Your task to perform on an android device: What's the weather going to be tomorrow? Image 0: 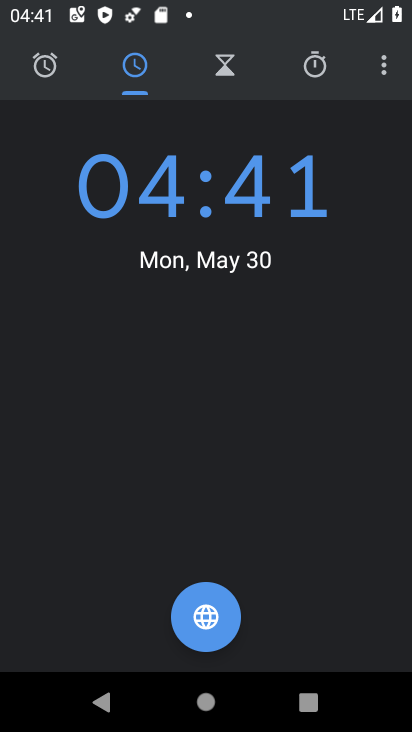
Step 0: press home button
Your task to perform on an android device: What's the weather going to be tomorrow? Image 1: 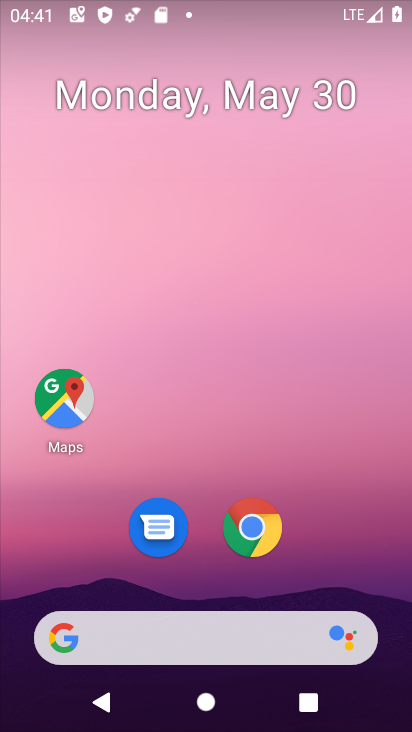
Step 1: drag from (230, 726) to (233, 21)
Your task to perform on an android device: What's the weather going to be tomorrow? Image 2: 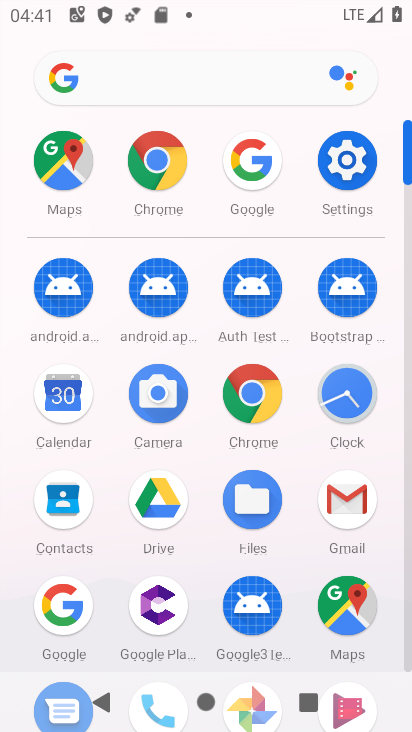
Step 2: click (55, 606)
Your task to perform on an android device: What's the weather going to be tomorrow? Image 3: 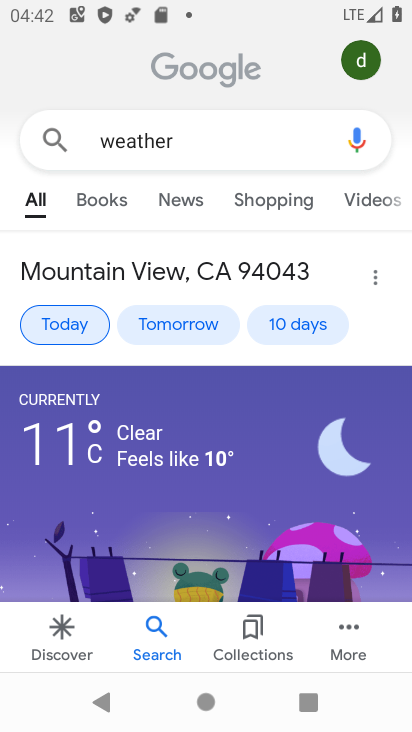
Step 3: click (186, 315)
Your task to perform on an android device: What's the weather going to be tomorrow? Image 4: 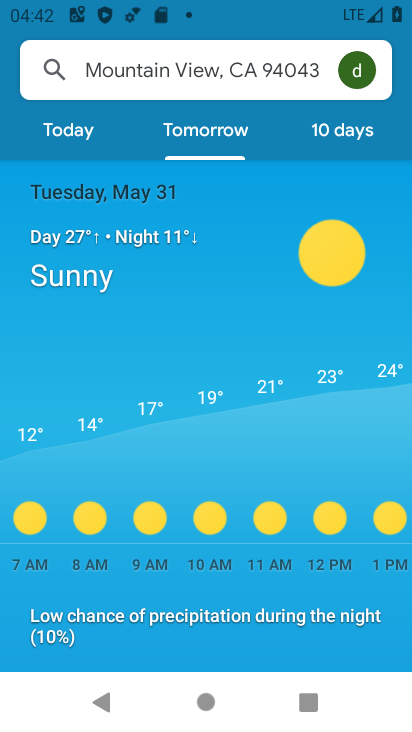
Step 4: task complete